Your task to perform on an android device: Open Maps and search for coffee Image 0: 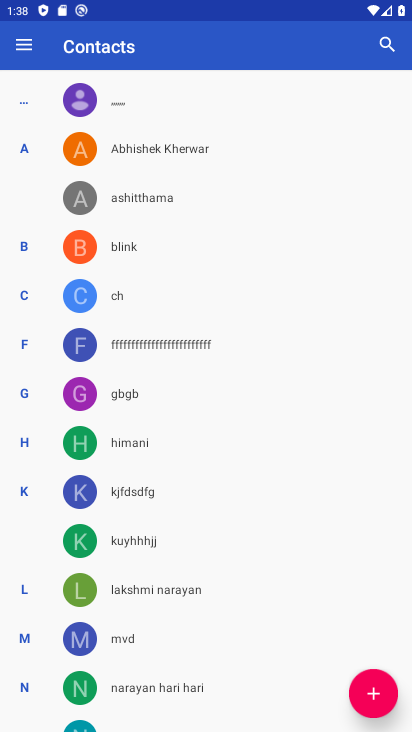
Step 0: press home button
Your task to perform on an android device: Open Maps and search for coffee Image 1: 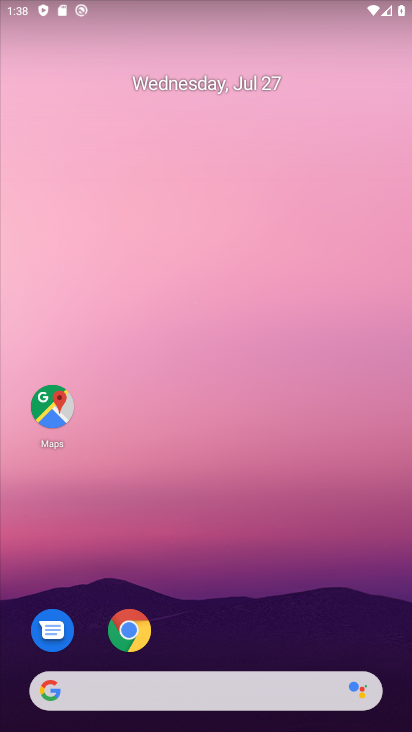
Step 1: click (53, 407)
Your task to perform on an android device: Open Maps and search for coffee Image 2: 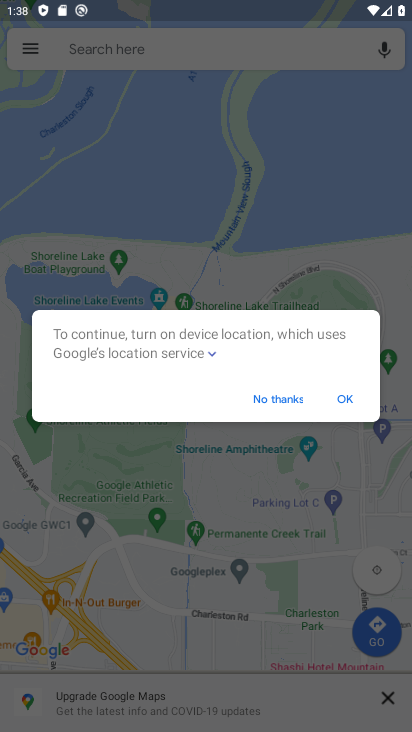
Step 2: click (343, 397)
Your task to perform on an android device: Open Maps and search for coffee Image 3: 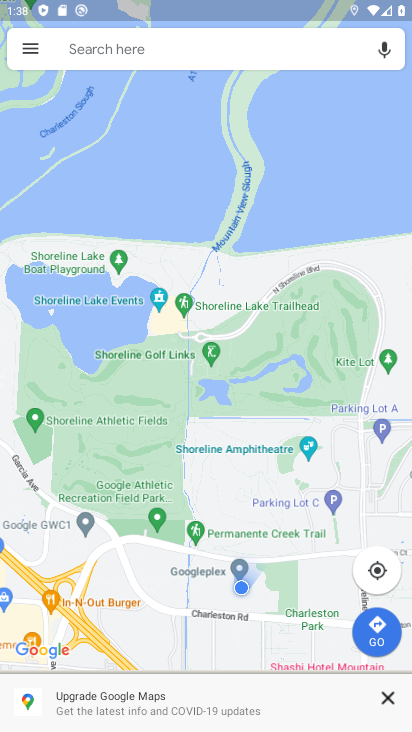
Step 3: click (105, 47)
Your task to perform on an android device: Open Maps and search for coffee Image 4: 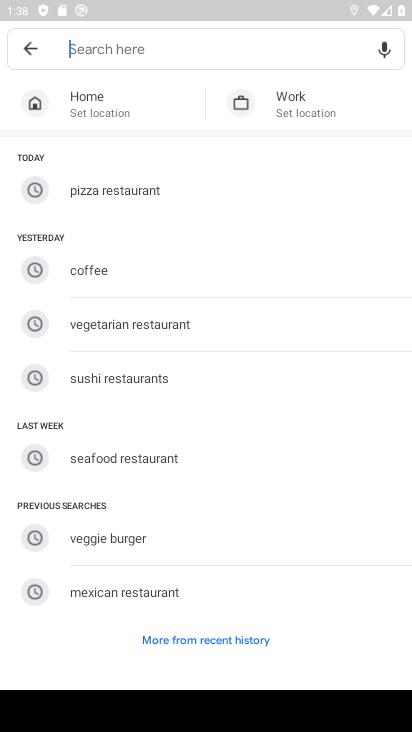
Step 4: type "coffee"
Your task to perform on an android device: Open Maps and search for coffee Image 5: 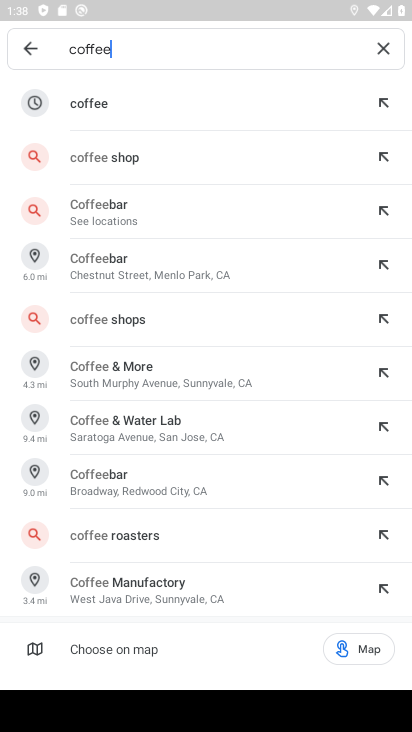
Step 5: click (115, 103)
Your task to perform on an android device: Open Maps and search for coffee Image 6: 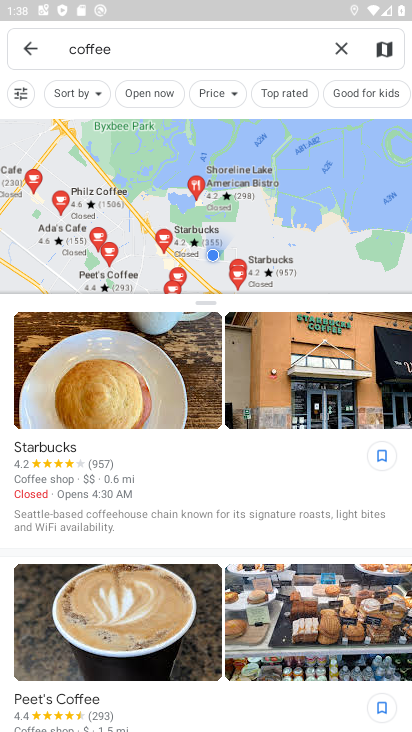
Step 6: task complete